Your task to perform on an android device: turn notification dots off Image 0: 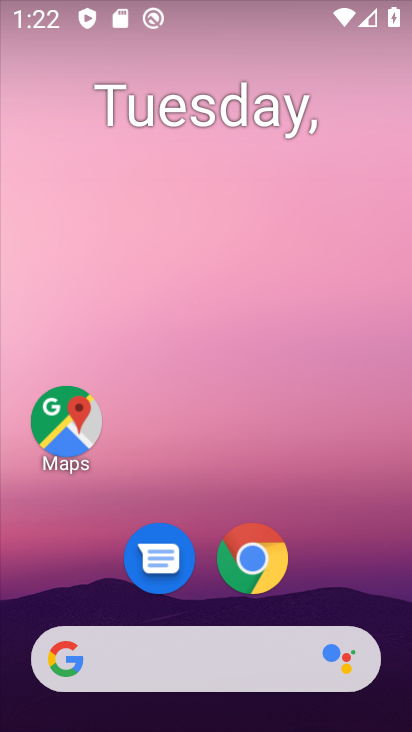
Step 0: drag from (157, 567) to (309, 120)
Your task to perform on an android device: turn notification dots off Image 1: 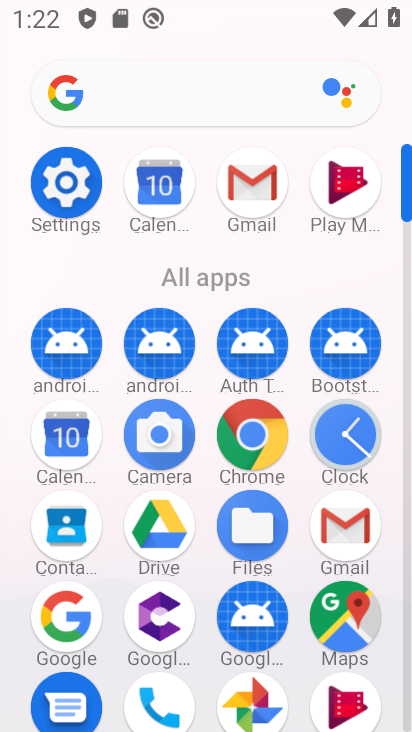
Step 1: click (67, 190)
Your task to perform on an android device: turn notification dots off Image 2: 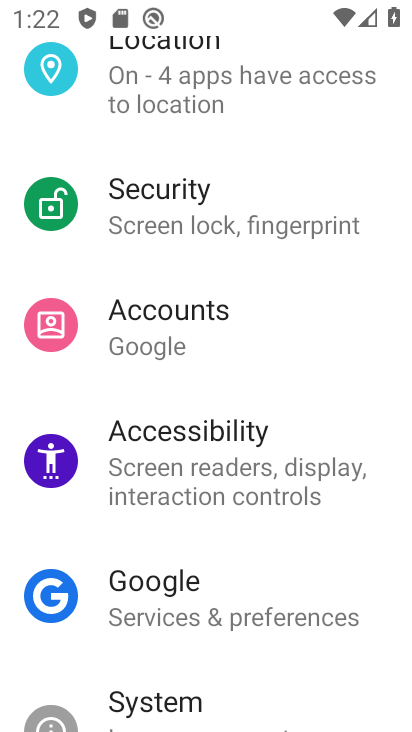
Step 2: drag from (221, 185) to (194, 730)
Your task to perform on an android device: turn notification dots off Image 3: 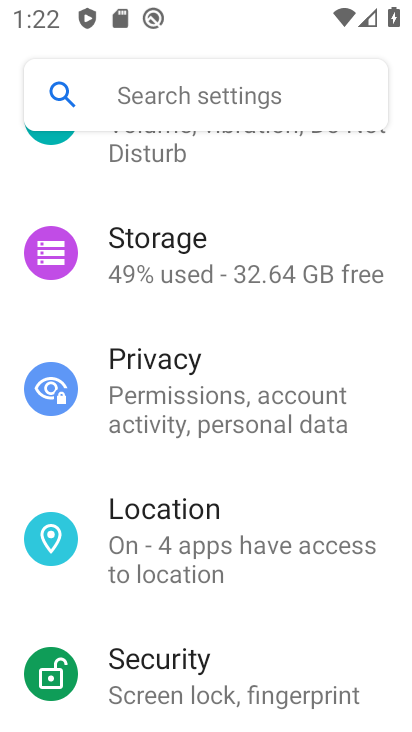
Step 3: drag from (246, 168) to (174, 695)
Your task to perform on an android device: turn notification dots off Image 4: 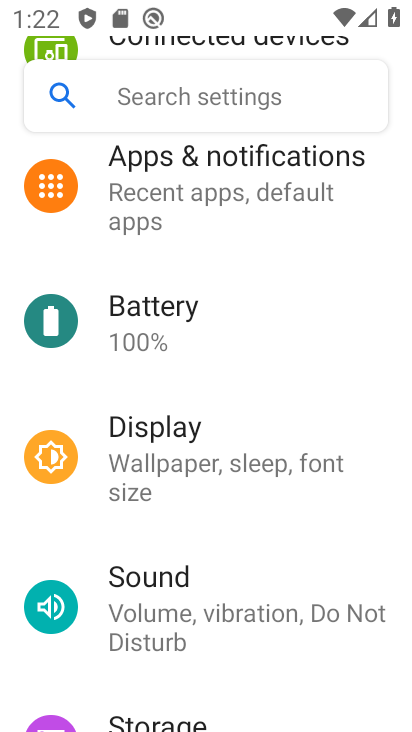
Step 4: click (237, 181)
Your task to perform on an android device: turn notification dots off Image 5: 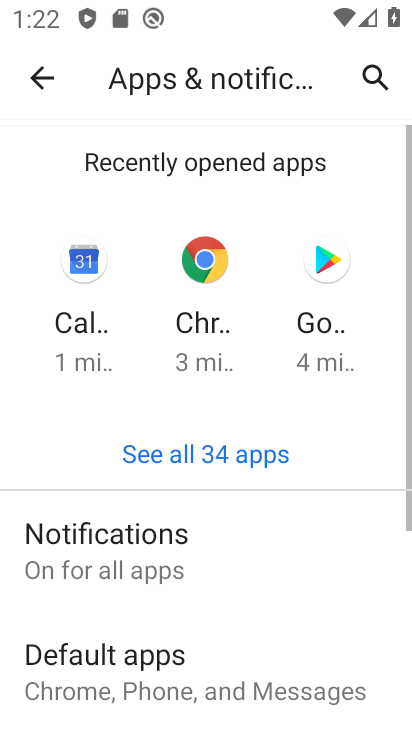
Step 5: click (180, 565)
Your task to perform on an android device: turn notification dots off Image 6: 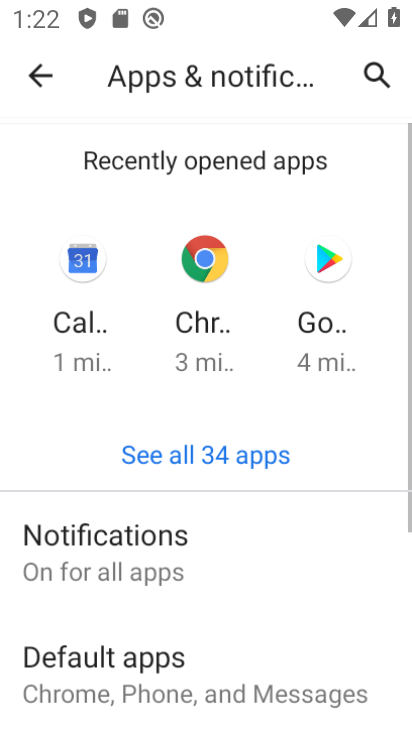
Step 6: drag from (187, 580) to (280, 95)
Your task to perform on an android device: turn notification dots off Image 7: 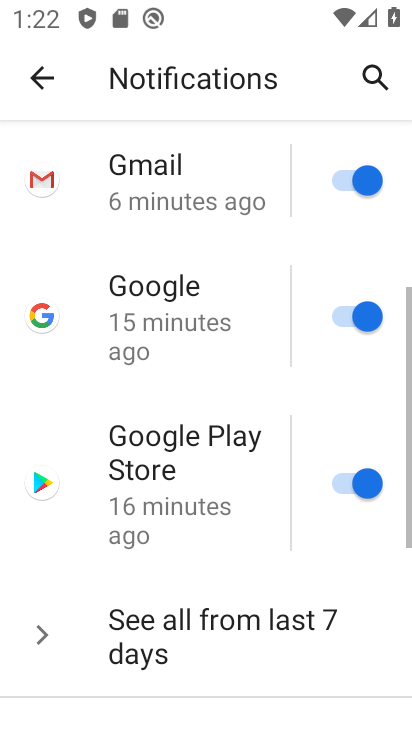
Step 7: drag from (226, 603) to (305, 29)
Your task to perform on an android device: turn notification dots off Image 8: 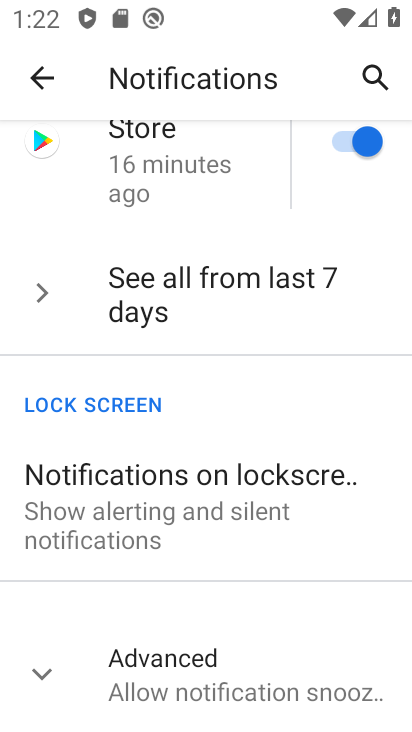
Step 8: drag from (233, 689) to (233, 181)
Your task to perform on an android device: turn notification dots off Image 9: 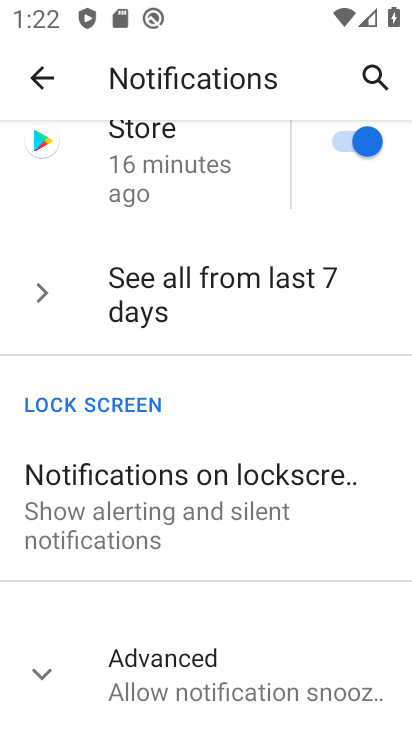
Step 9: click (180, 692)
Your task to perform on an android device: turn notification dots off Image 10: 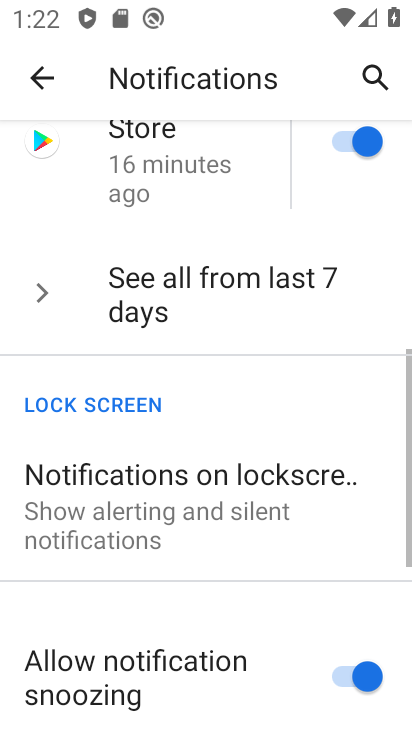
Step 10: drag from (184, 675) to (285, 158)
Your task to perform on an android device: turn notification dots off Image 11: 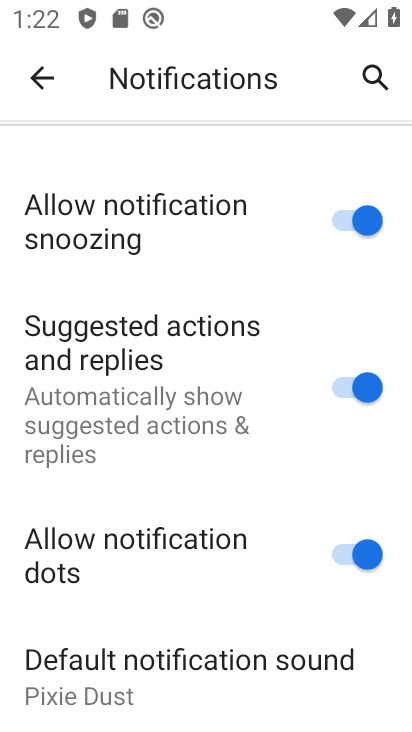
Step 11: click (353, 561)
Your task to perform on an android device: turn notification dots off Image 12: 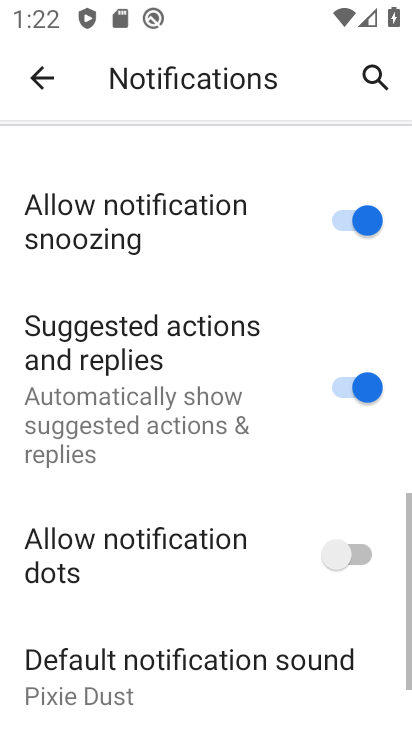
Step 12: task complete